Your task to perform on an android device: Open Chrome and go to settings Image 0: 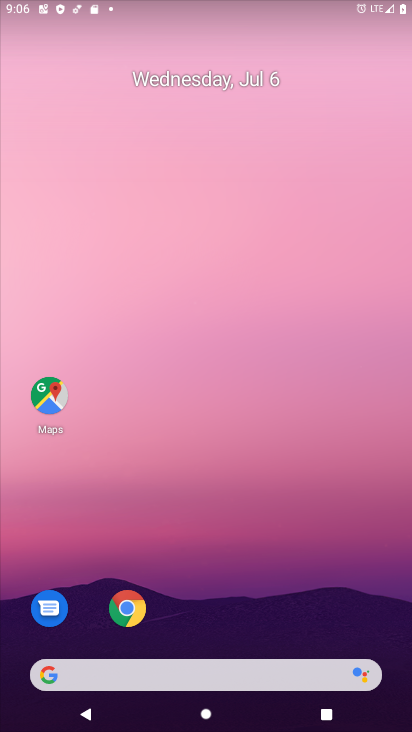
Step 0: drag from (372, 650) to (309, 111)
Your task to perform on an android device: Open Chrome and go to settings Image 1: 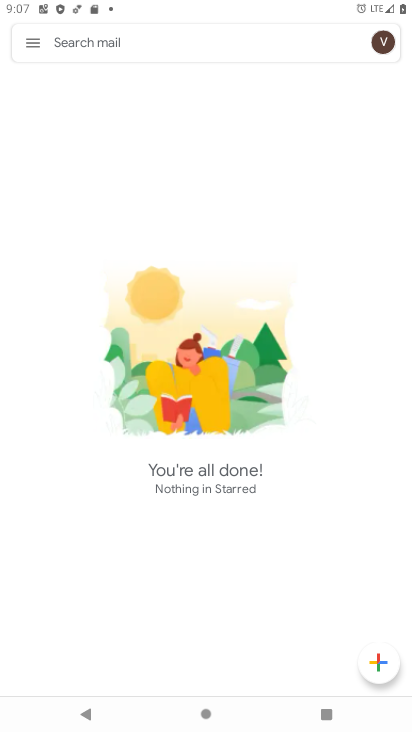
Step 1: press home button
Your task to perform on an android device: Open Chrome and go to settings Image 2: 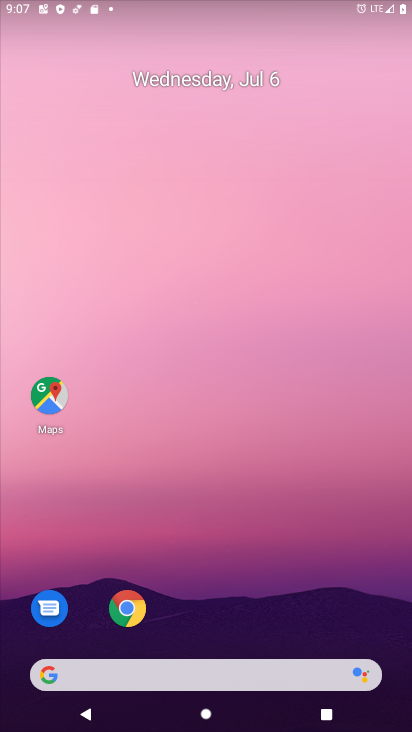
Step 2: drag from (350, 634) to (285, 32)
Your task to perform on an android device: Open Chrome and go to settings Image 3: 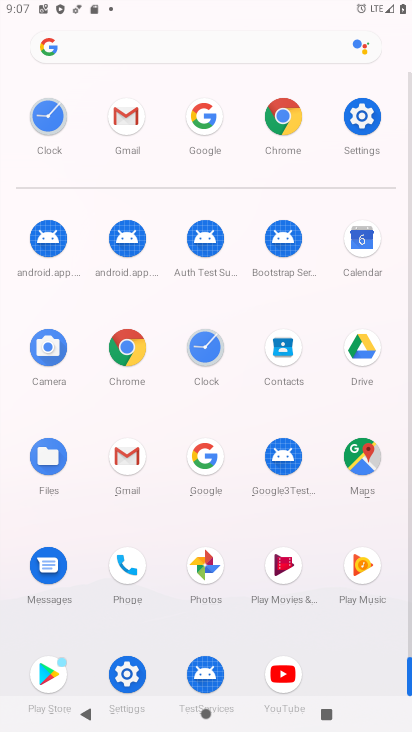
Step 3: click (276, 126)
Your task to perform on an android device: Open Chrome and go to settings Image 4: 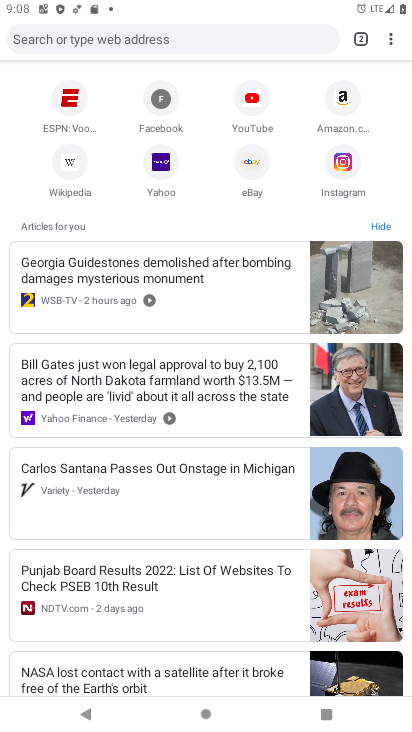
Step 4: click (388, 39)
Your task to perform on an android device: Open Chrome and go to settings Image 5: 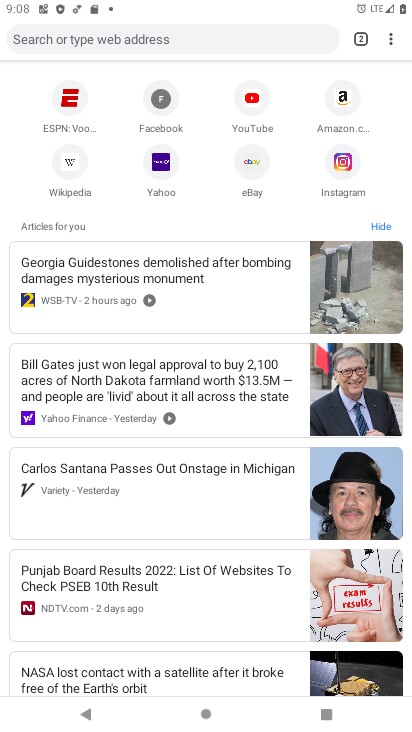
Step 5: click (389, 38)
Your task to perform on an android device: Open Chrome and go to settings Image 6: 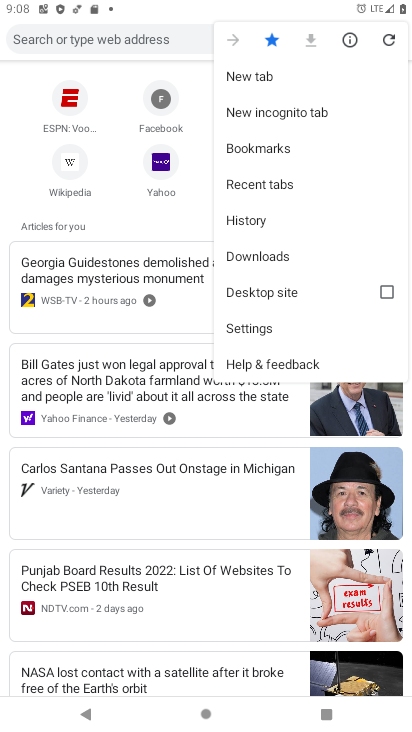
Step 6: click (233, 330)
Your task to perform on an android device: Open Chrome and go to settings Image 7: 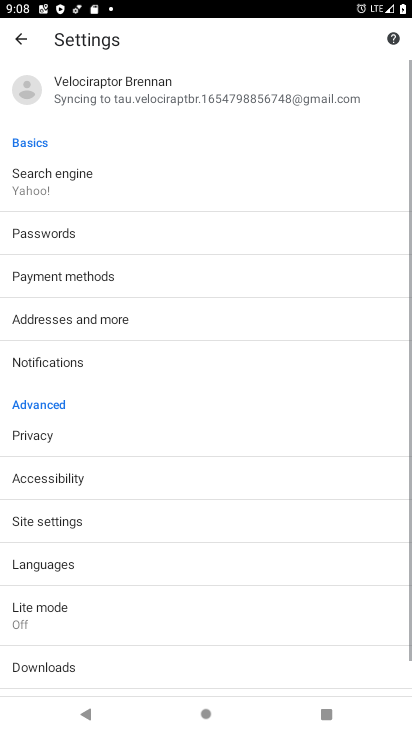
Step 7: task complete